Your task to perform on an android device: Open Chrome and go to the settings page Image 0: 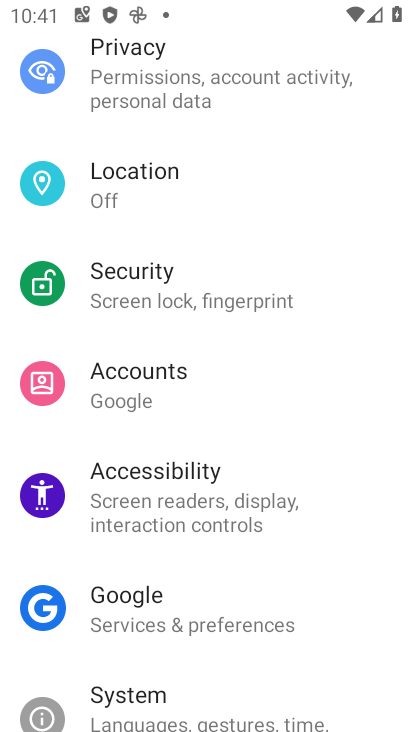
Step 0: drag from (386, 660) to (324, 185)
Your task to perform on an android device: Open Chrome and go to the settings page Image 1: 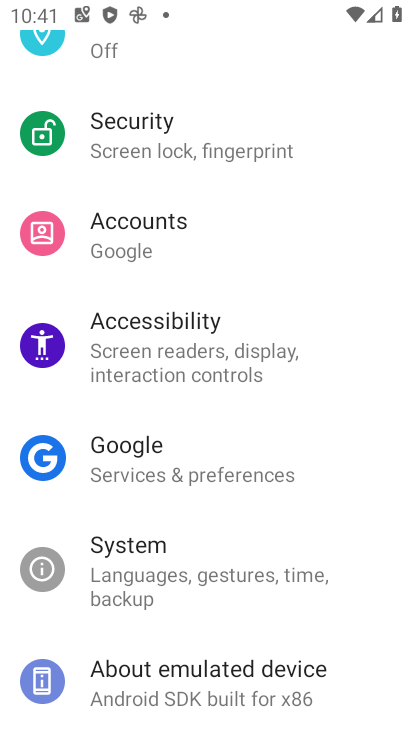
Step 1: press home button
Your task to perform on an android device: Open Chrome and go to the settings page Image 2: 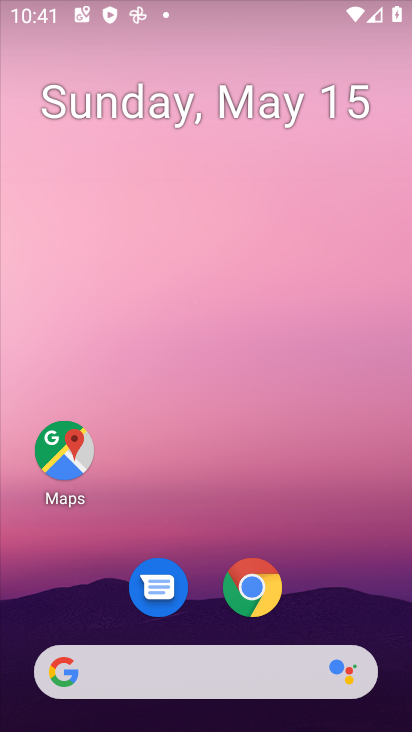
Step 2: click (382, 449)
Your task to perform on an android device: Open Chrome and go to the settings page Image 3: 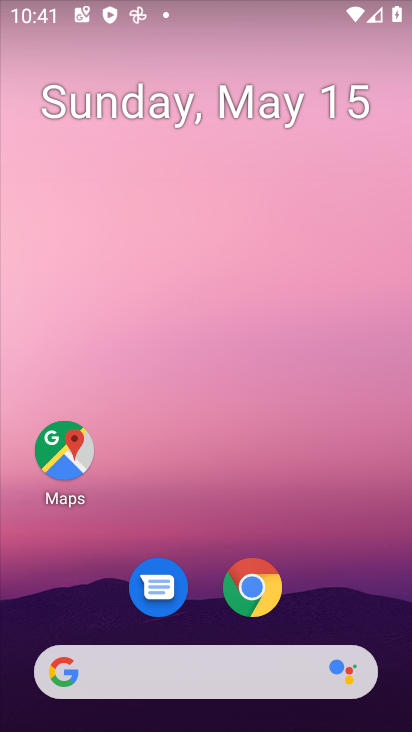
Step 3: drag from (381, 641) to (245, 15)
Your task to perform on an android device: Open Chrome and go to the settings page Image 4: 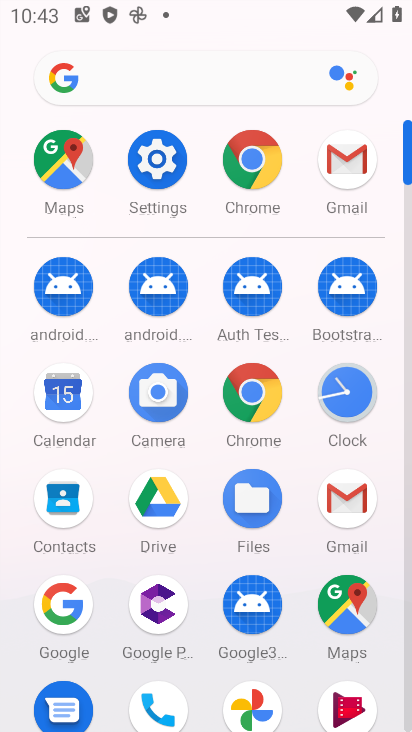
Step 4: click (250, 150)
Your task to perform on an android device: Open Chrome and go to the settings page Image 5: 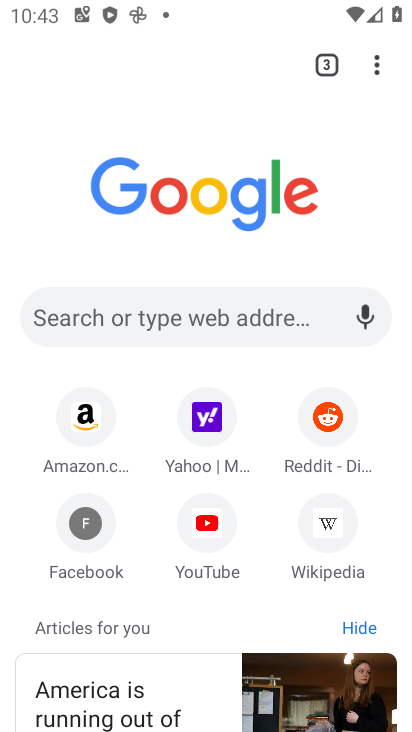
Step 5: click (381, 75)
Your task to perform on an android device: Open Chrome and go to the settings page Image 6: 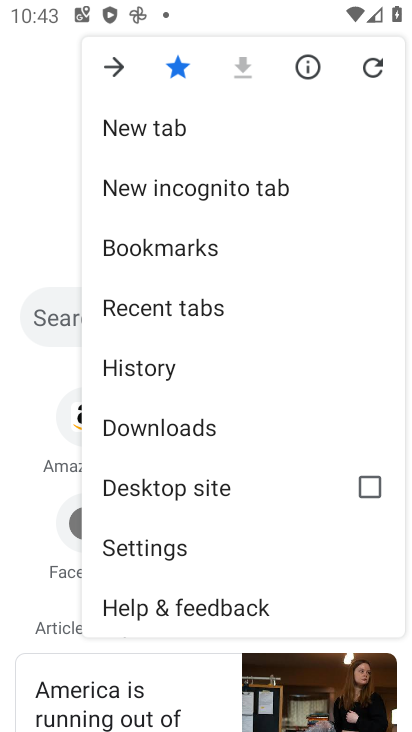
Step 6: click (197, 551)
Your task to perform on an android device: Open Chrome and go to the settings page Image 7: 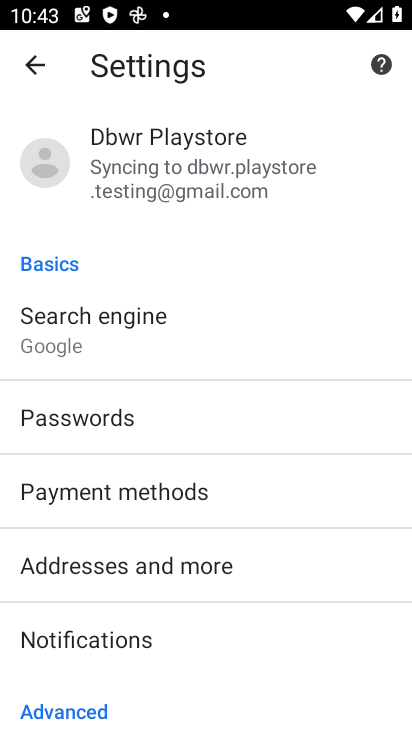
Step 7: task complete